Your task to perform on an android device: Look up the best rated gaming chairs on Target. Image 0: 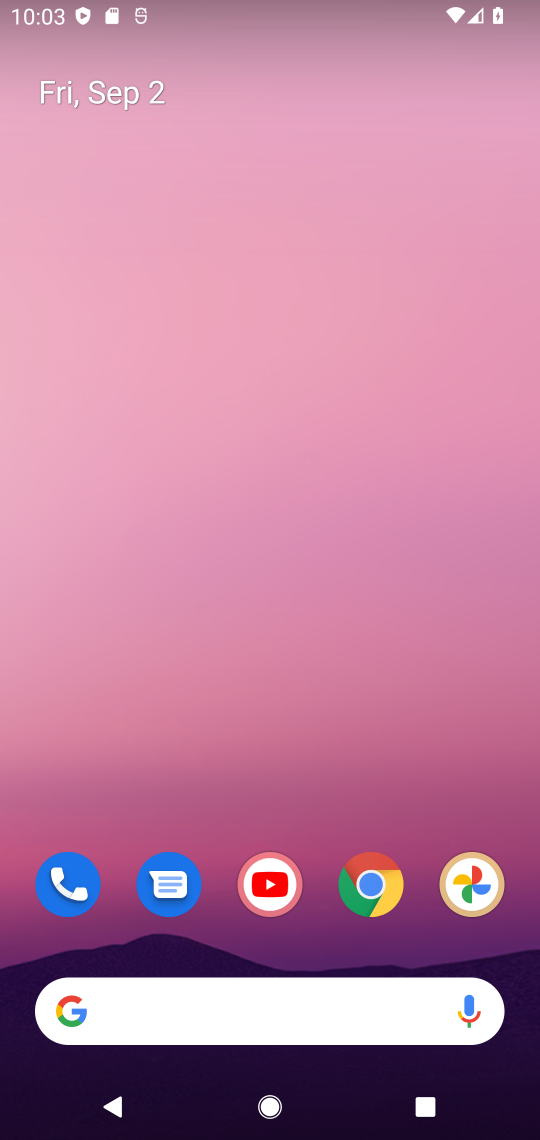
Step 0: drag from (335, 973) to (345, 494)
Your task to perform on an android device: Look up the best rated gaming chairs on Target. Image 1: 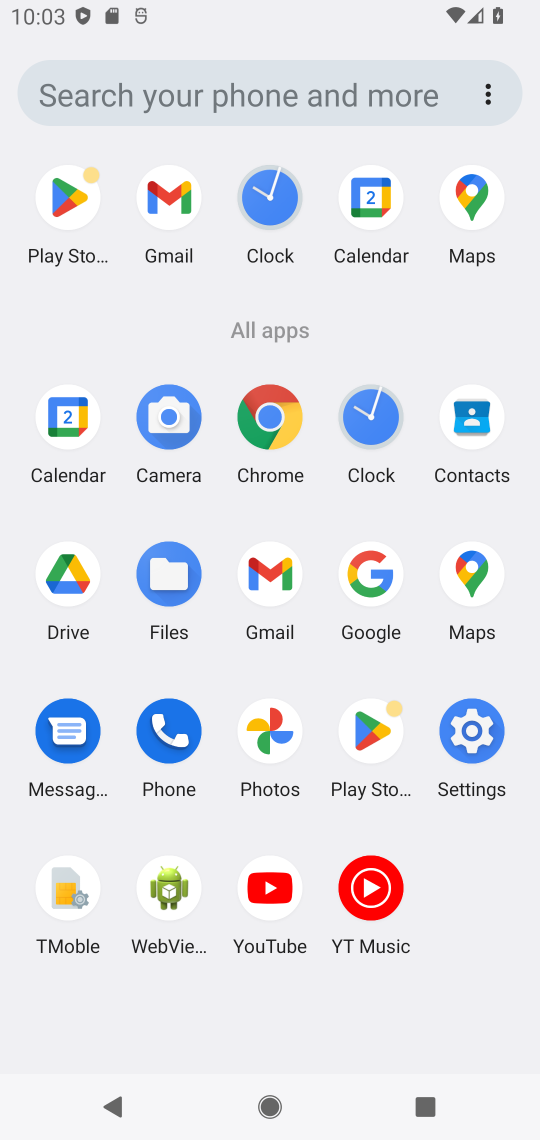
Step 1: click (277, 466)
Your task to perform on an android device: Look up the best rated gaming chairs on Target. Image 2: 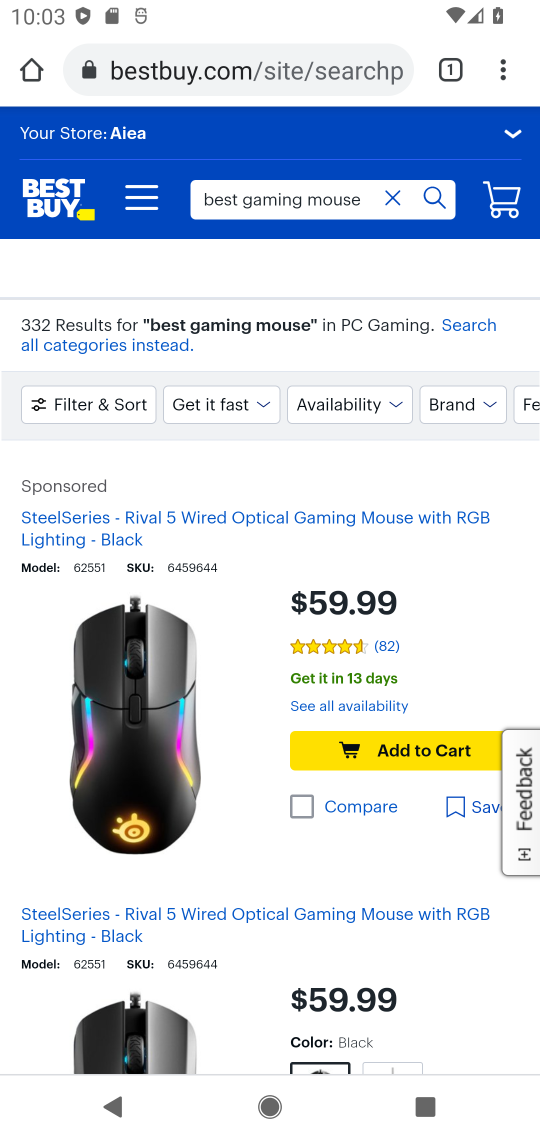
Step 2: click (332, 68)
Your task to perform on an android device: Look up the best rated gaming chairs on Target. Image 3: 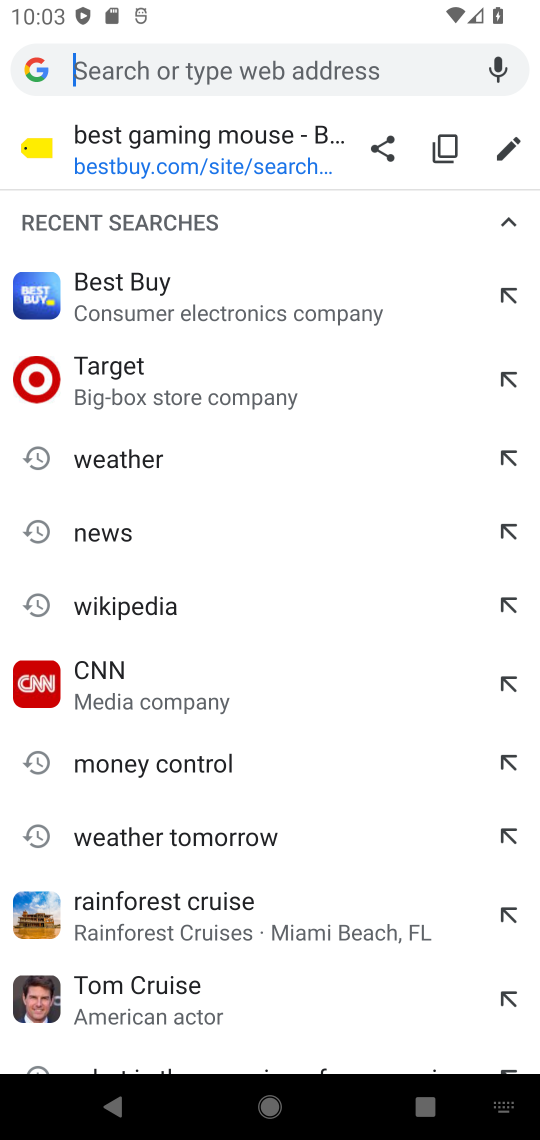
Step 3: click (205, 377)
Your task to perform on an android device: Look up the best rated gaming chairs on Target. Image 4: 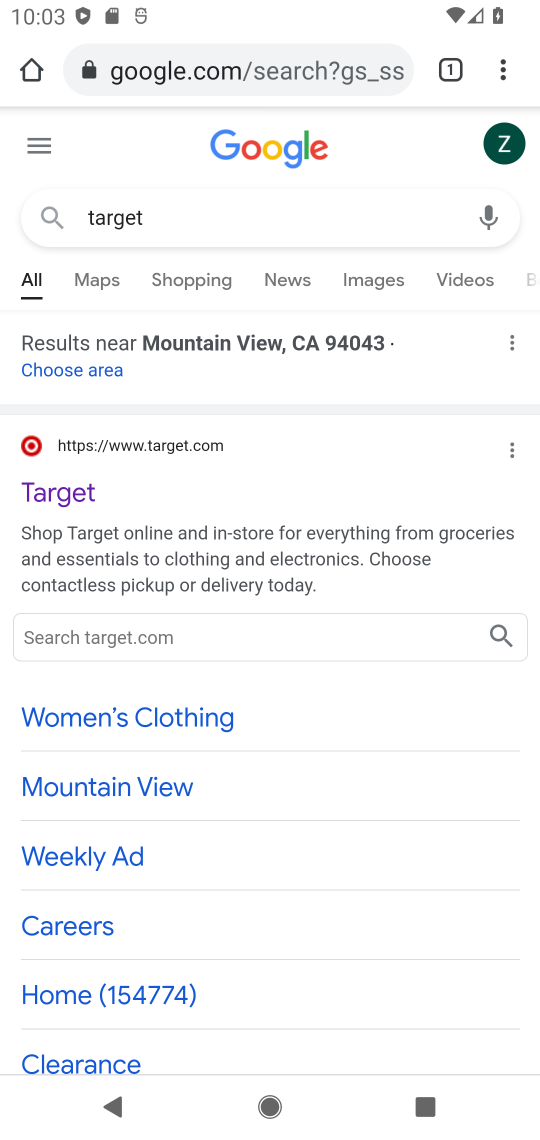
Step 4: click (72, 494)
Your task to perform on an android device: Look up the best rated gaming chairs on Target. Image 5: 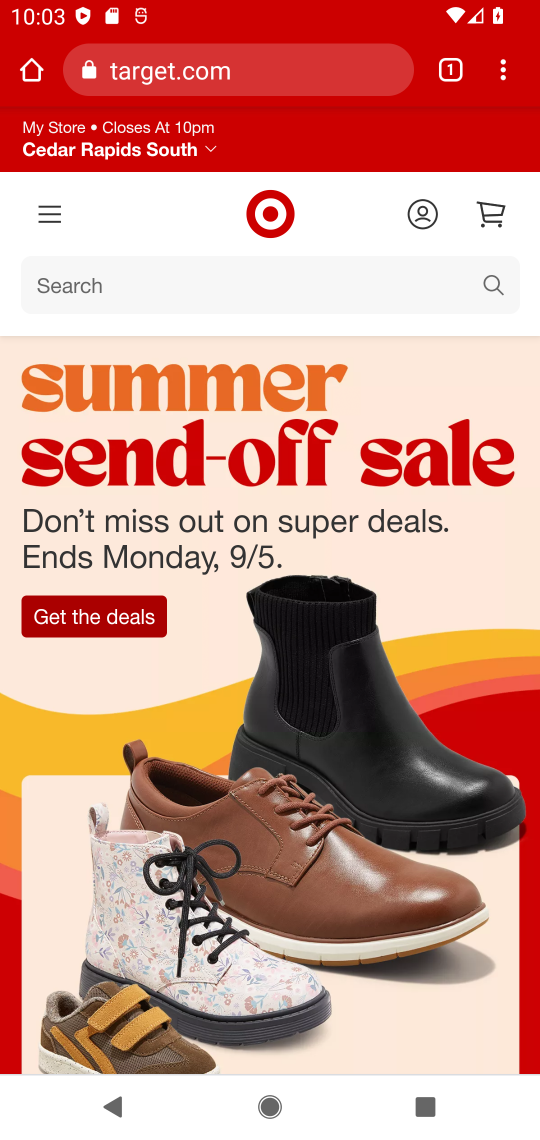
Step 5: click (486, 287)
Your task to perform on an android device: Look up the best rated gaming chairs on Target. Image 6: 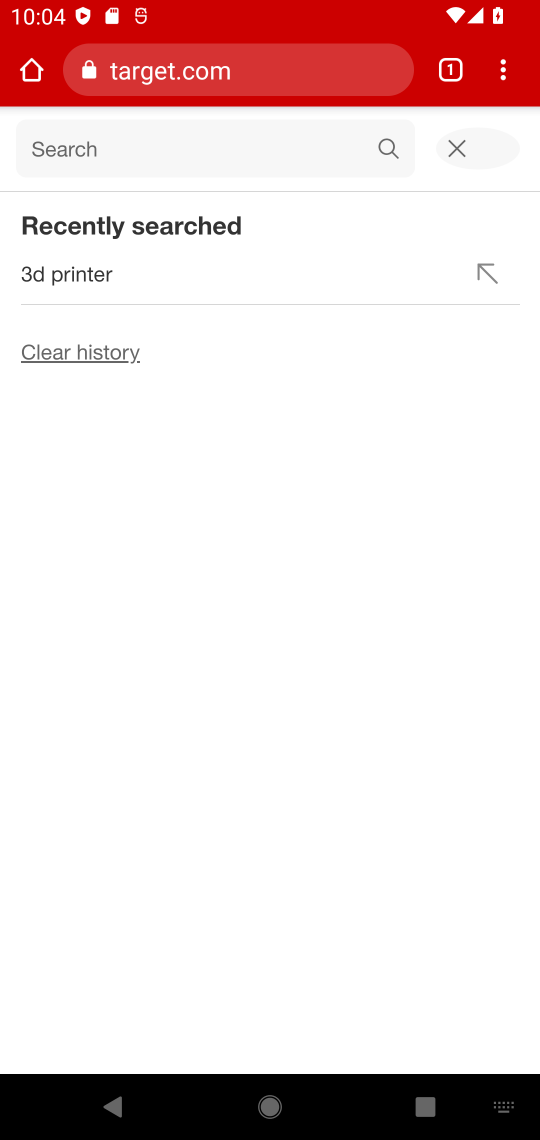
Step 6: type "best rated gaming chairs"
Your task to perform on an android device: Look up the best rated gaming chairs on Target. Image 7: 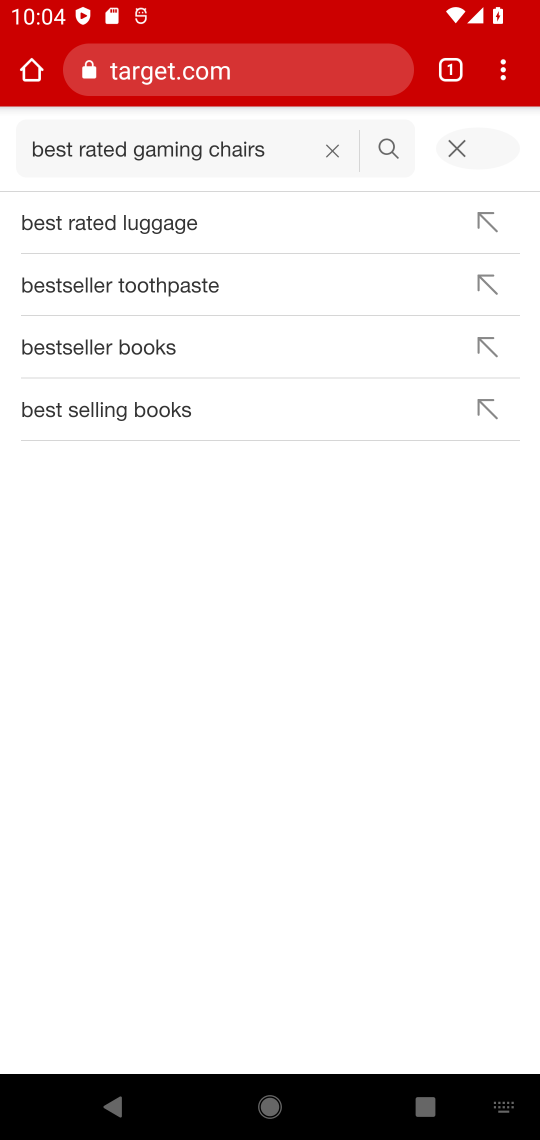
Step 7: click (387, 146)
Your task to perform on an android device: Look up the best rated gaming chairs on Target. Image 8: 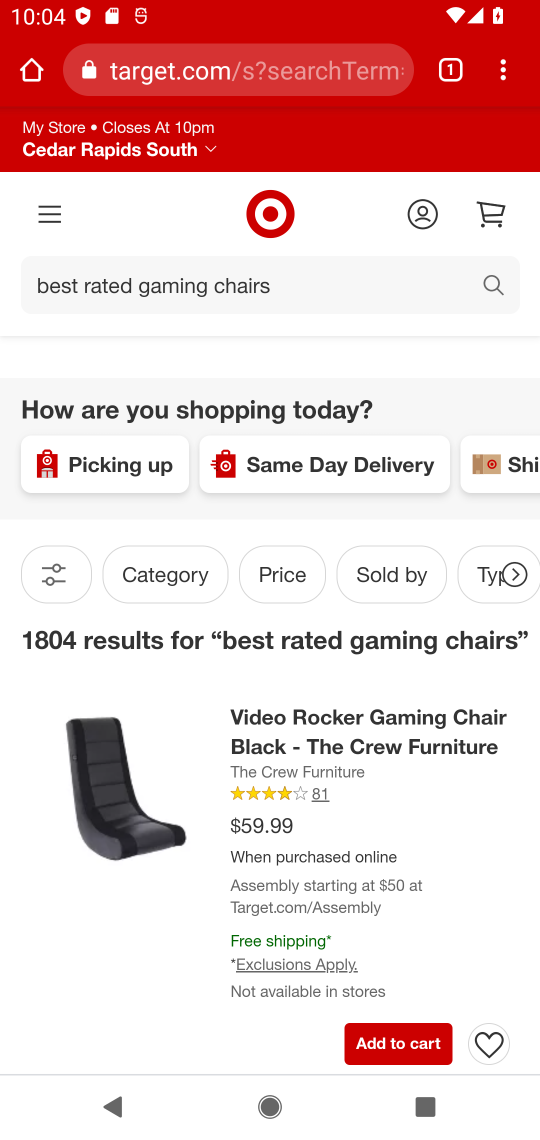
Step 8: task complete